Your task to perform on an android device: toggle data saver in the chrome app Image 0: 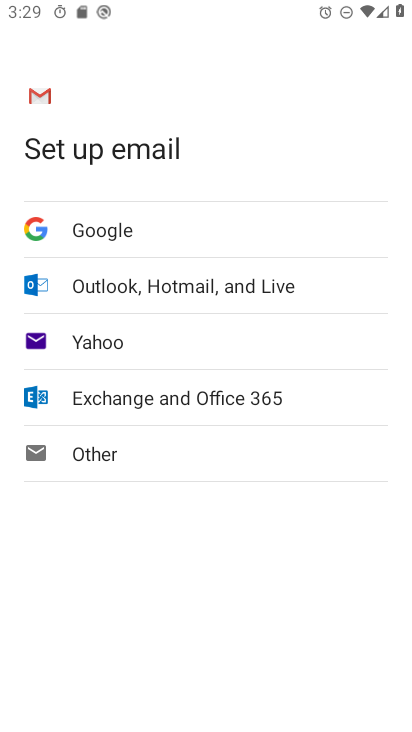
Step 0: press home button
Your task to perform on an android device: toggle data saver in the chrome app Image 1: 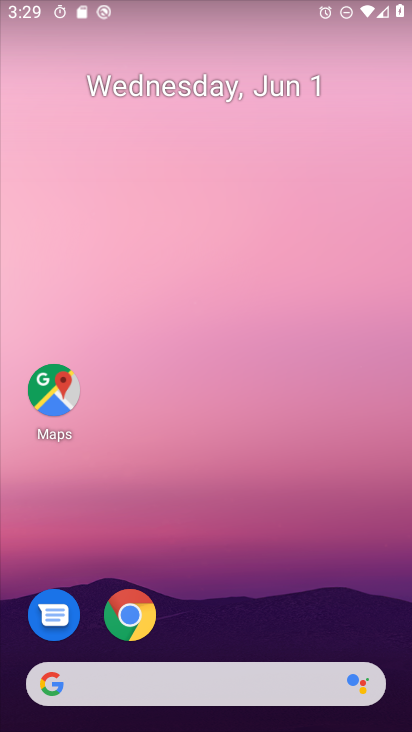
Step 1: drag from (226, 642) to (281, 90)
Your task to perform on an android device: toggle data saver in the chrome app Image 2: 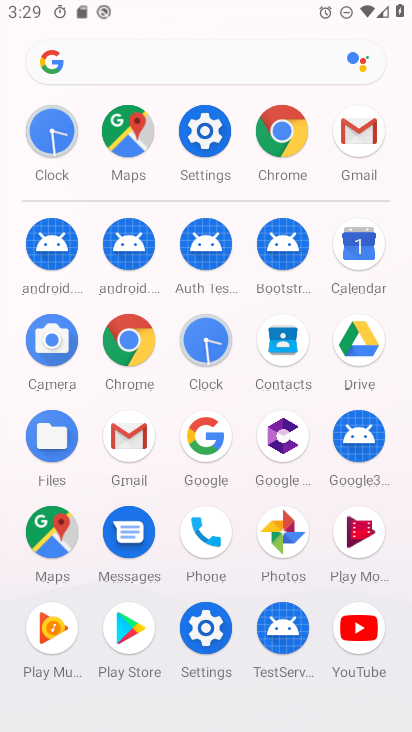
Step 2: click (280, 145)
Your task to perform on an android device: toggle data saver in the chrome app Image 3: 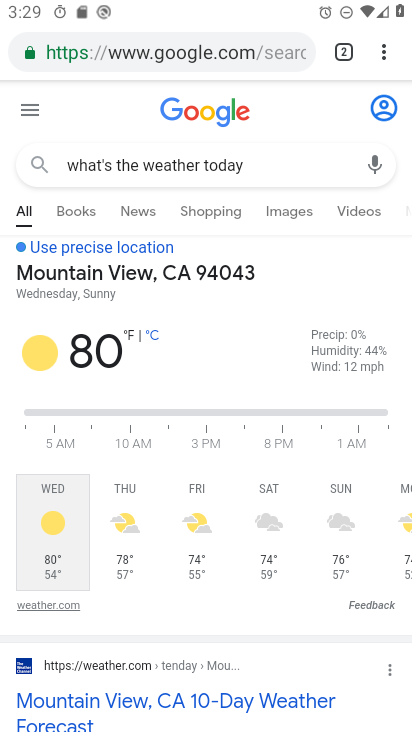
Step 3: click (387, 55)
Your task to perform on an android device: toggle data saver in the chrome app Image 4: 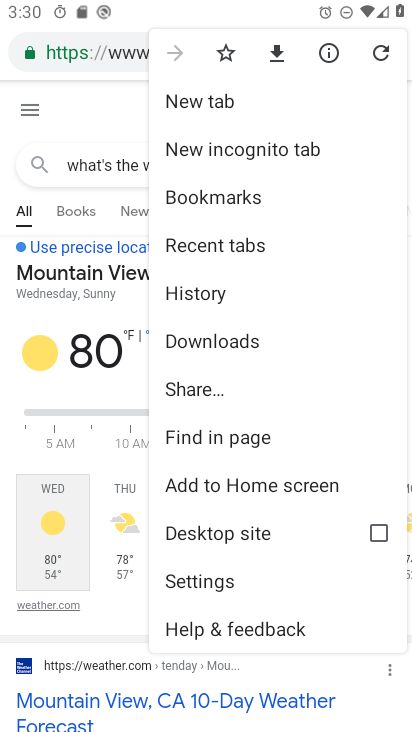
Step 4: click (220, 581)
Your task to perform on an android device: toggle data saver in the chrome app Image 5: 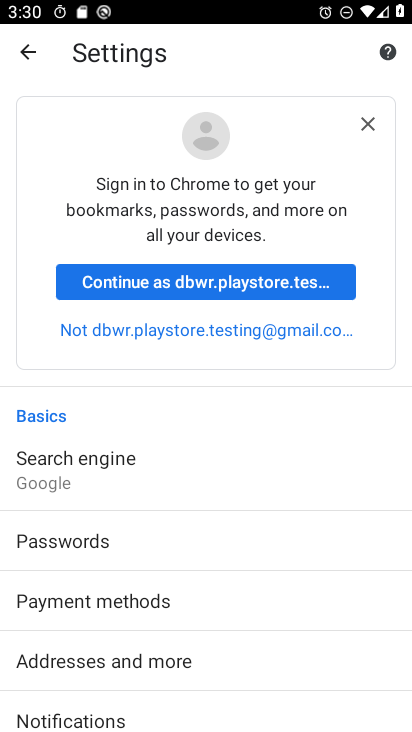
Step 5: drag from (258, 577) to (235, 194)
Your task to perform on an android device: toggle data saver in the chrome app Image 6: 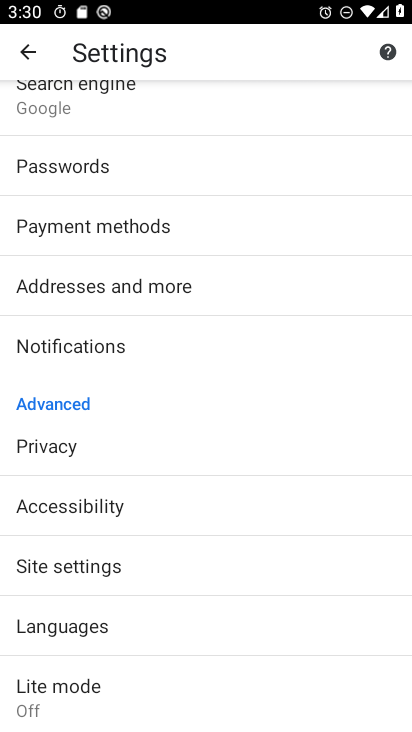
Step 6: drag from (185, 651) to (229, 269)
Your task to perform on an android device: toggle data saver in the chrome app Image 7: 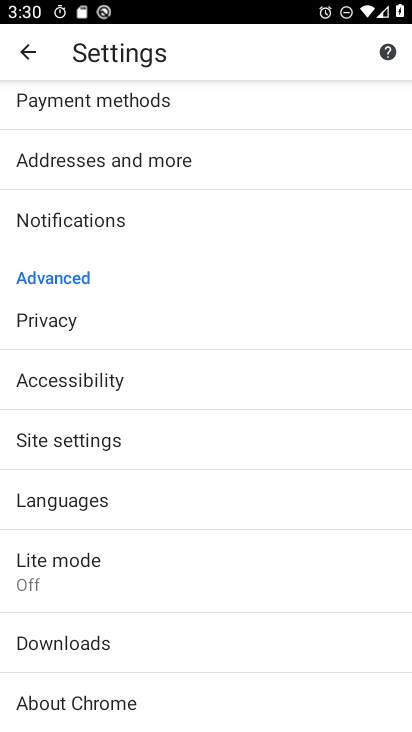
Step 7: click (212, 584)
Your task to perform on an android device: toggle data saver in the chrome app Image 8: 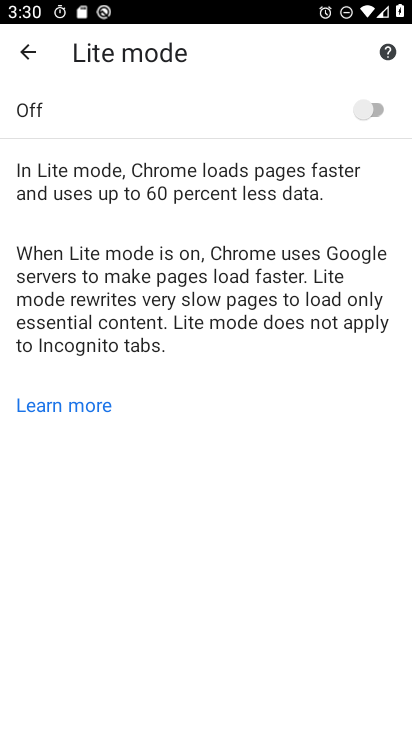
Step 8: click (374, 116)
Your task to perform on an android device: toggle data saver in the chrome app Image 9: 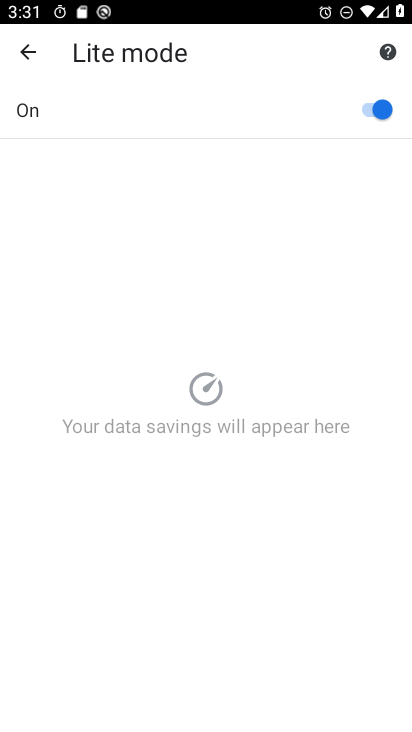
Step 9: task complete